Your task to perform on an android device: empty trash in google photos Image 0: 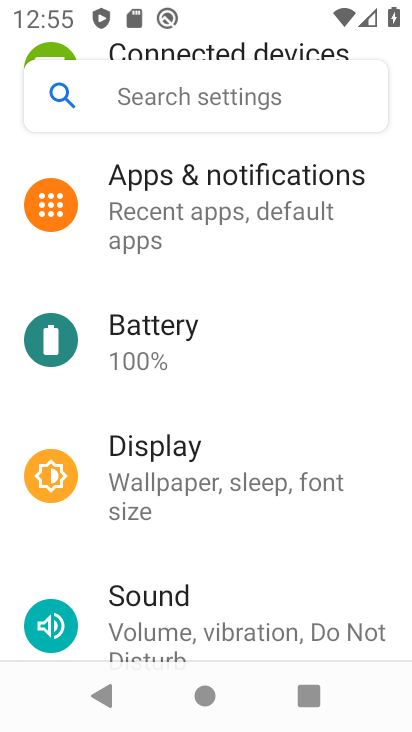
Step 0: press home button
Your task to perform on an android device: empty trash in google photos Image 1: 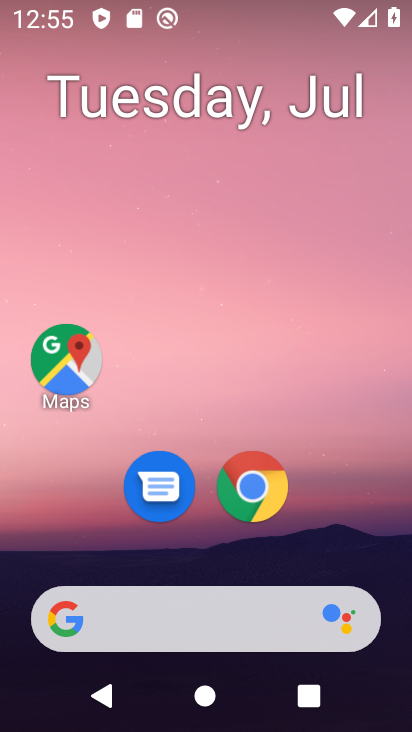
Step 1: drag from (363, 565) to (356, 63)
Your task to perform on an android device: empty trash in google photos Image 2: 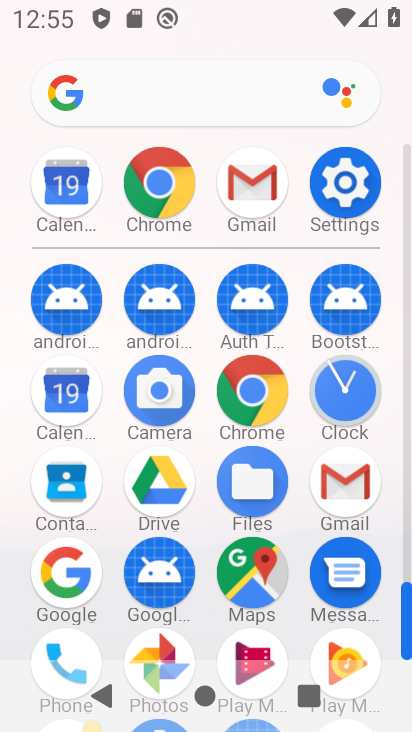
Step 2: drag from (382, 443) to (390, 288)
Your task to perform on an android device: empty trash in google photos Image 3: 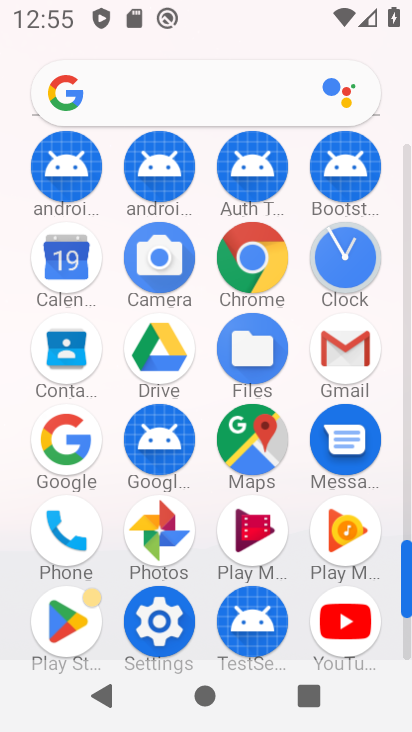
Step 3: click (166, 538)
Your task to perform on an android device: empty trash in google photos Image 4: 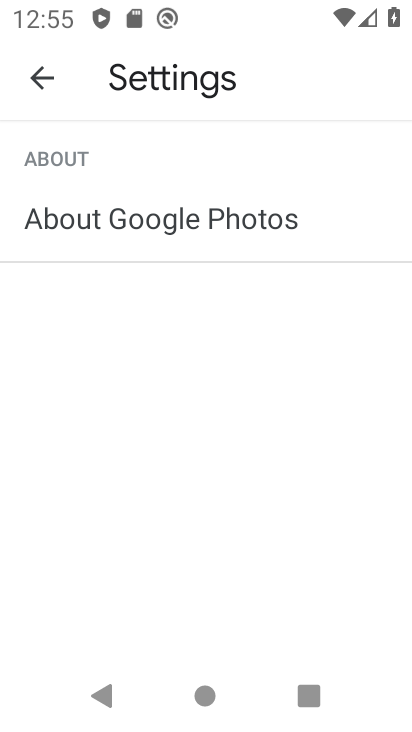
Step 4: task complete